Your task to perform on an android device: When is my next meeting? Image 0: 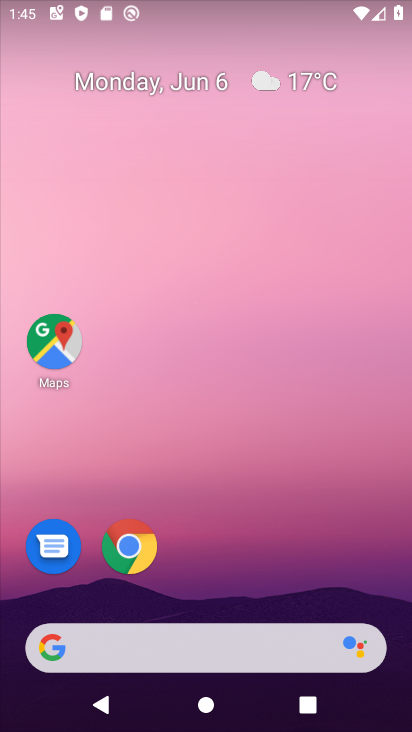
Step 0: drag from (271, 569) to (289, 185)
Your task to perform on an android device: When is my next meeting? Image 1: 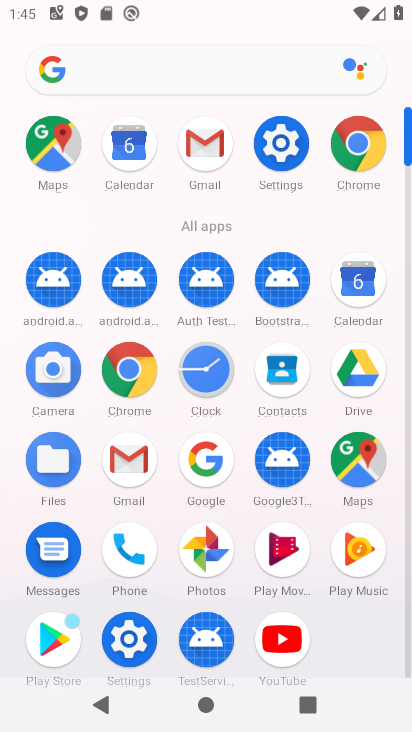
Step 1: click (358, 279)
Your task to perform on an android device: When is my next meeting? Image 2: 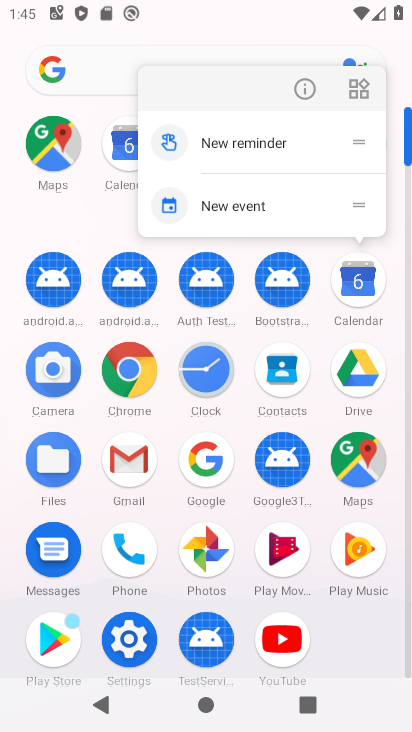
Step 2: click (359, 279)
Your task to perform on an android device: When is my next meeting? Image 3: 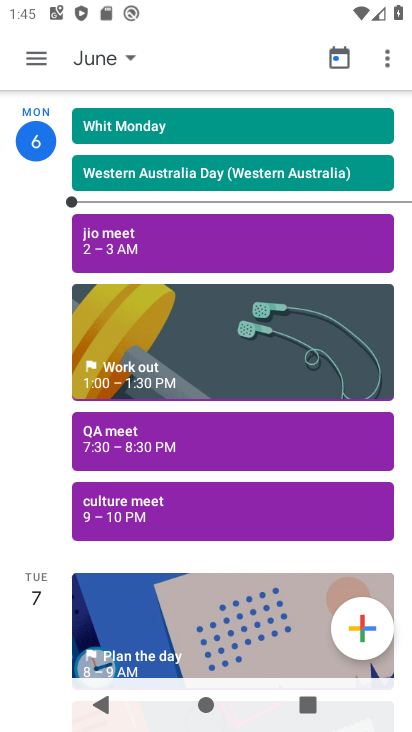
Step 3: task complete